Your task to perform on an android device: When is my next appointment? Image 0: 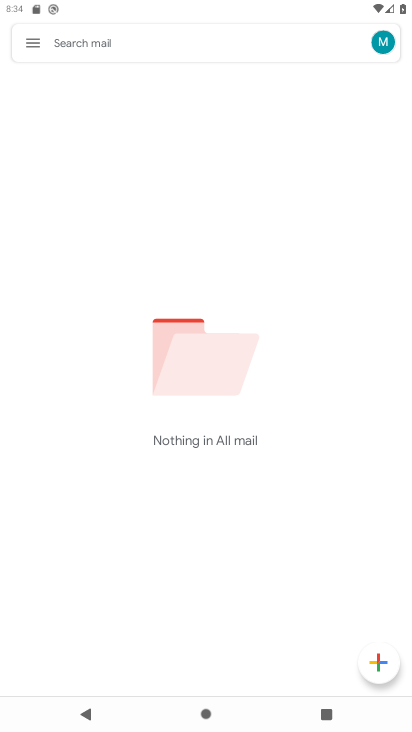
Step 0: press home button
Your task to perform on an android device: When is my next appointment? Image 1: 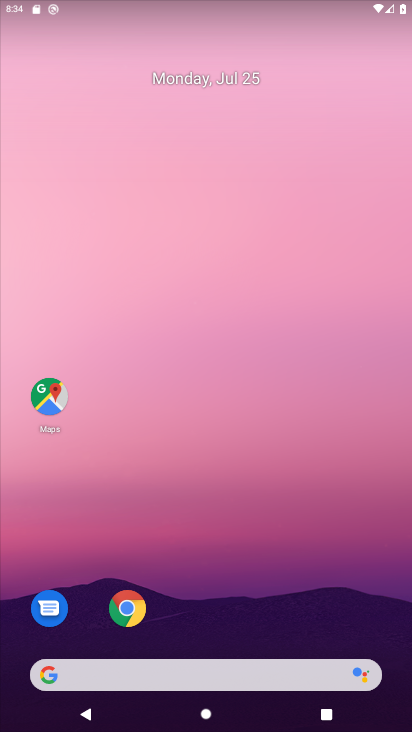
Step 1: drag from (295, 601) to (312, 33)
Your task to perform on an android device: When is my next appointment? Image 2: 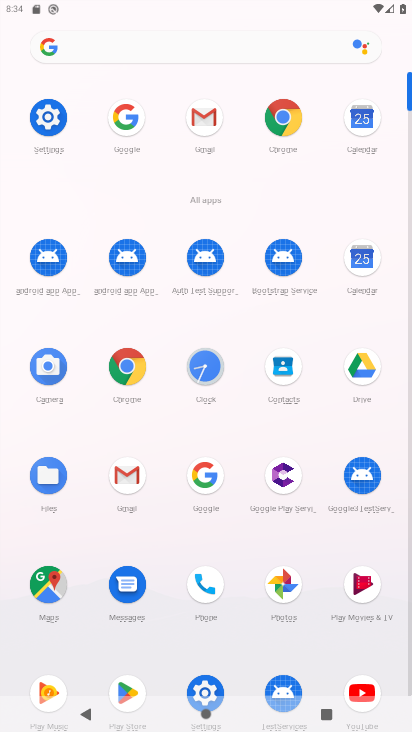
Step 2: click (359, 267)
Your task to perform on an android device: When is my next appointment? Image 3: 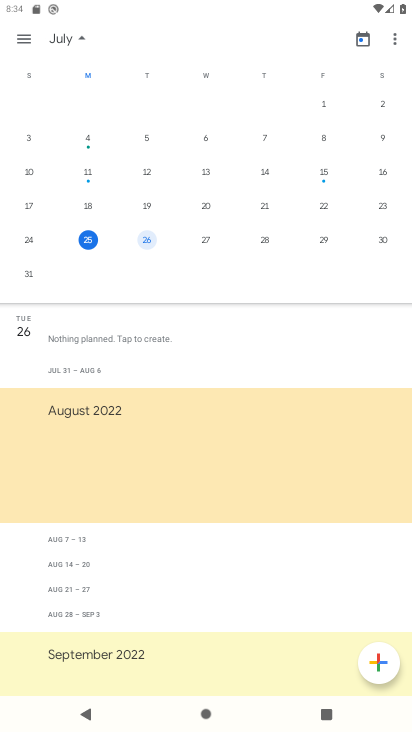
Step 3: click (86, 240)
Your task to perform on an android device: When is my next appointment? Image 4: 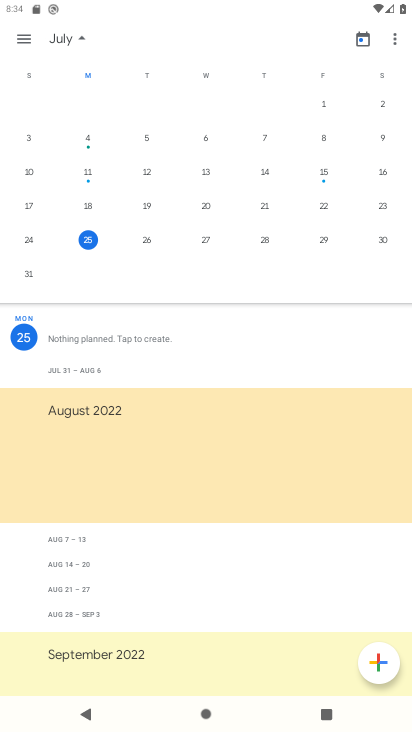
Step 4: task complete